Your task to perform on an android device: toggle javascript in the chrome app Image 0: 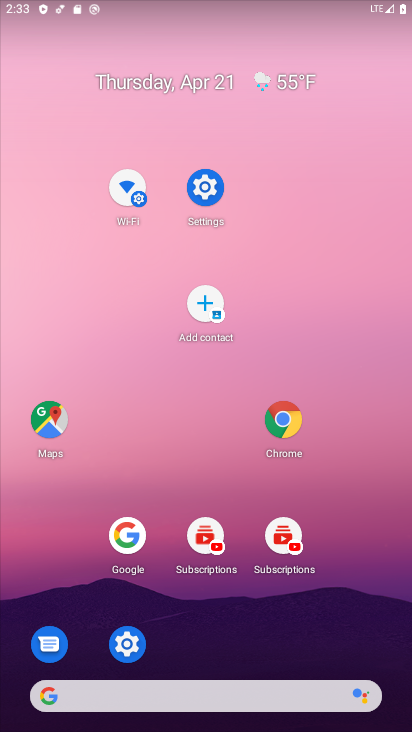
Step 0: drag from (250, 705) to (132, 66)
Your task to perform on an android device: toggle javascript in the chrome app Image 1: 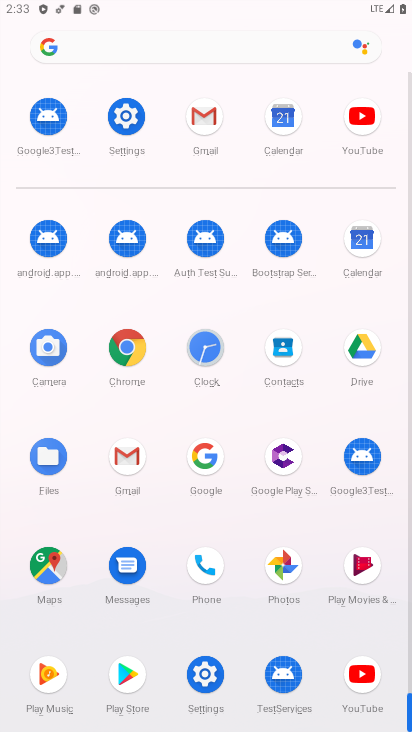
Step 1: click (138, 346)
Your task to perform on an android device: toggle javascript in the chrome app Image 2: 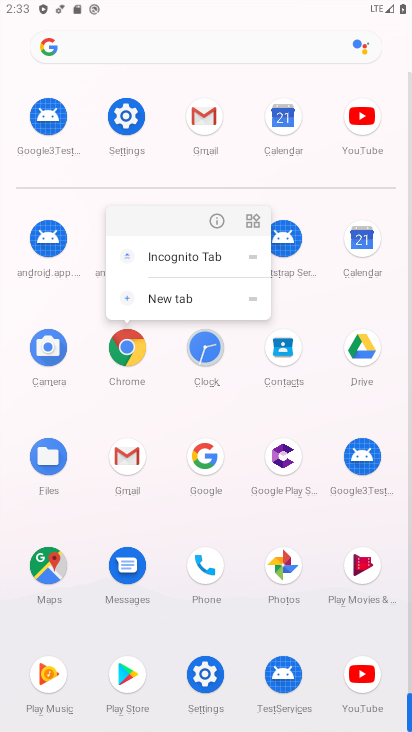
Step 2: click (128, 357)
Your task to perform on an android device: toggle javascript in the chrome app Image 3: 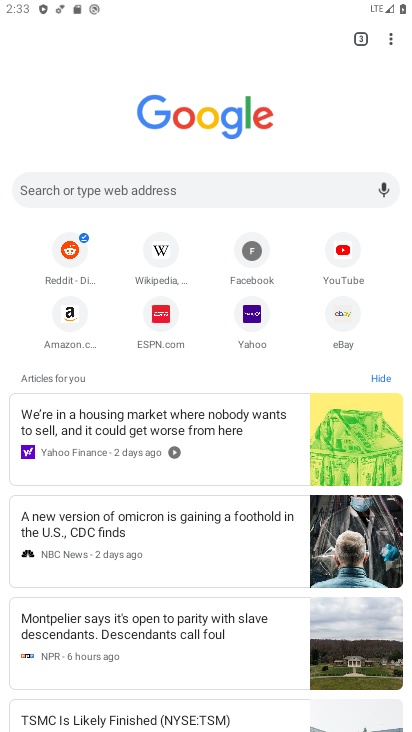
Step 3: drag from (389, 41) to (261, 364)
Your task to perform on an android device: toggle javascript in the chrome app Image 4: 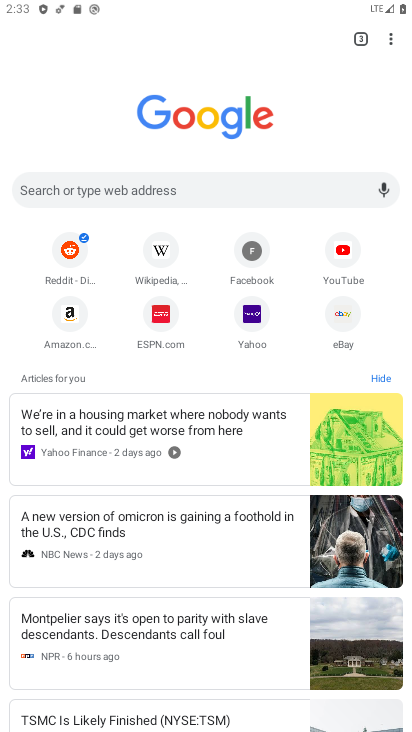
Step 4: click (261, 364)
Your task to perform on an android device: toggle javascript in the chrome app Image 5: 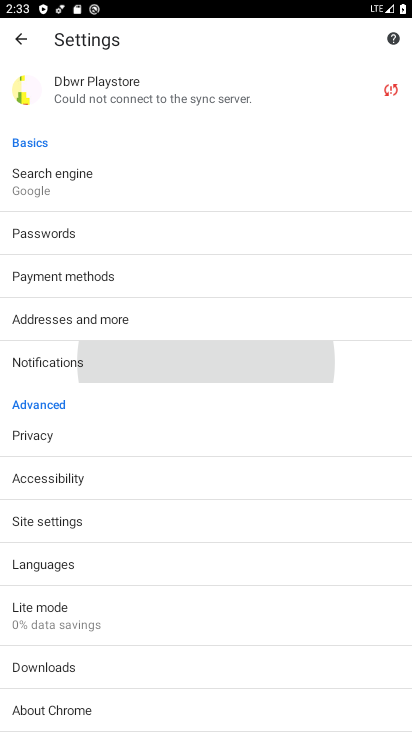
Step 5: click (261, 364)
Your task to perform on an android device: toggle javascript in the chrome app Image 6: 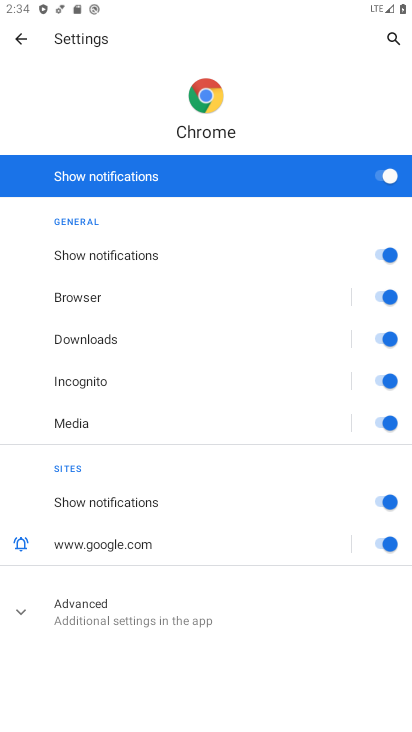
Step 6: click (16, 40)
Your task to perform on an android device: toggle javascript in the chrome app Image 7: 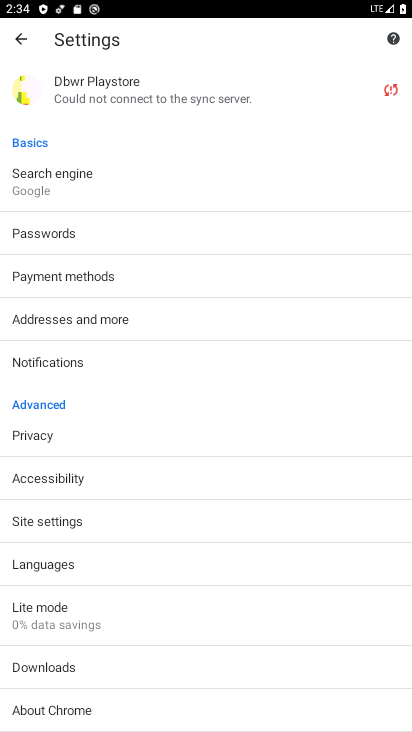
Step 7: click (39, 513)
Your task to perform on an android device: toggle javascript in the chrome app Image 8: 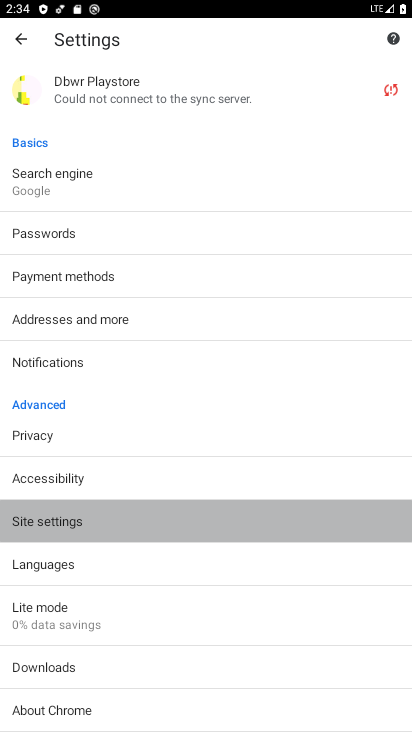
Step 8: click (39, 513)
Your task to perform on an android device: toggle javascript in the chrome app Image 9: 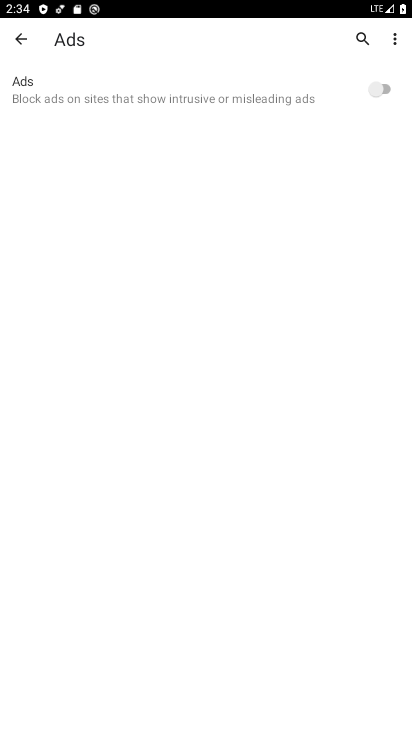
Step 9: click (21, 38)
Your task to perform on an android device: toggle javascript in the chrome app Image 10: 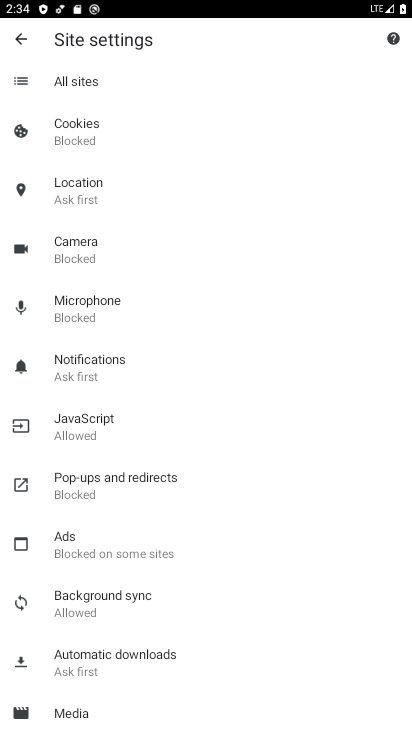
Step 10: click (83, 421)
Your task to perform on an android device: toggle javascript in the chrome app Image 11: 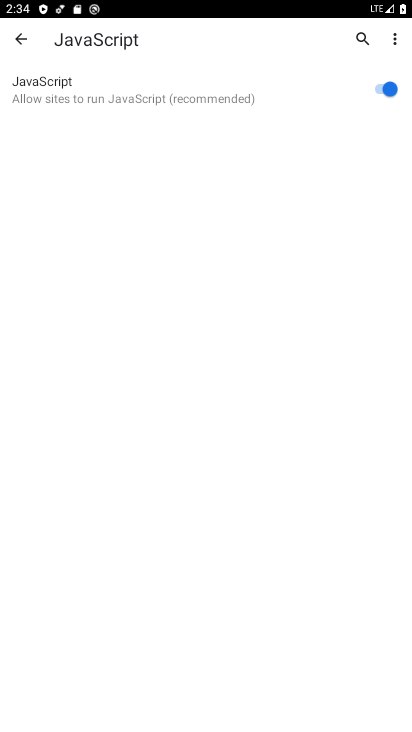
Step 11: click (393, 87)
Your task to perform on an android device: toggle javascript in the chrome app Image 12: 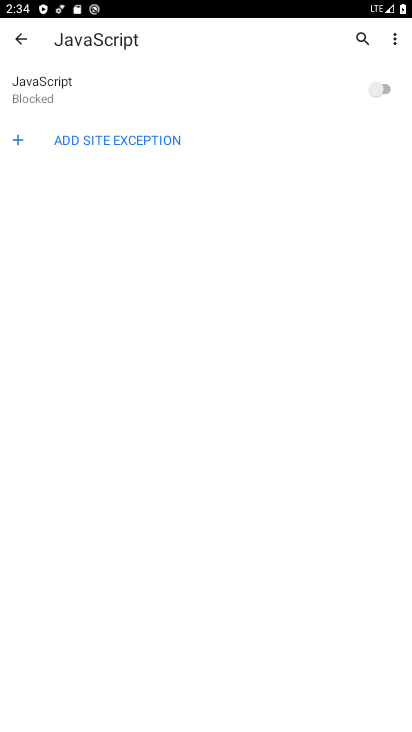
Step 12: task complete